Your task to perform on an android device: turn off data saver in the chrome app Image 0: 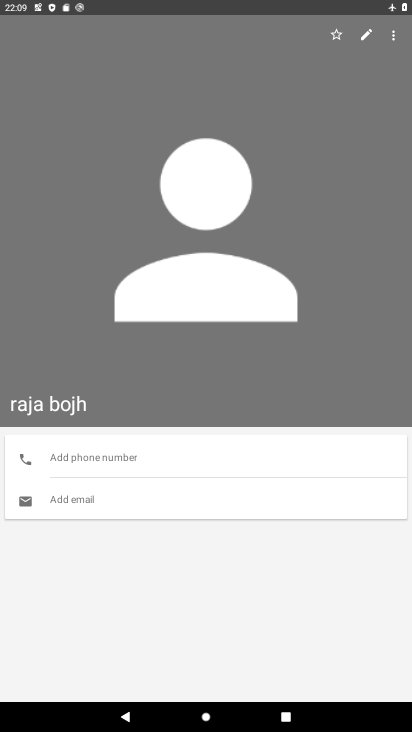
Step 0: press home button
Your task to perform on an android device: turn off data saver in the chrome app Image 1: 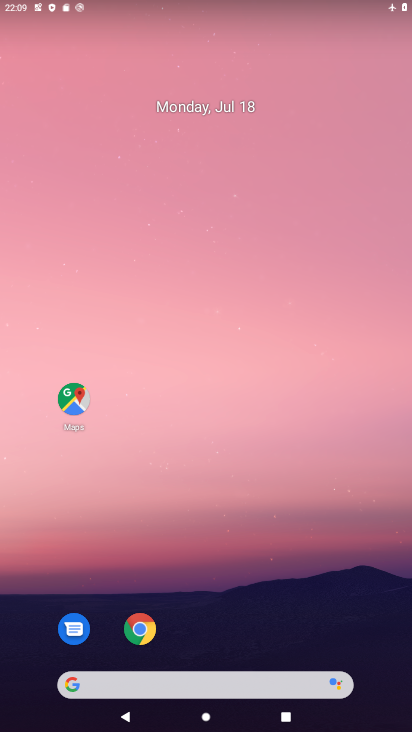
Step 1: drag from (268, 632) to (295, 199)
Your task to perform on an android device: turn off data saver in the chrome app Image 2: 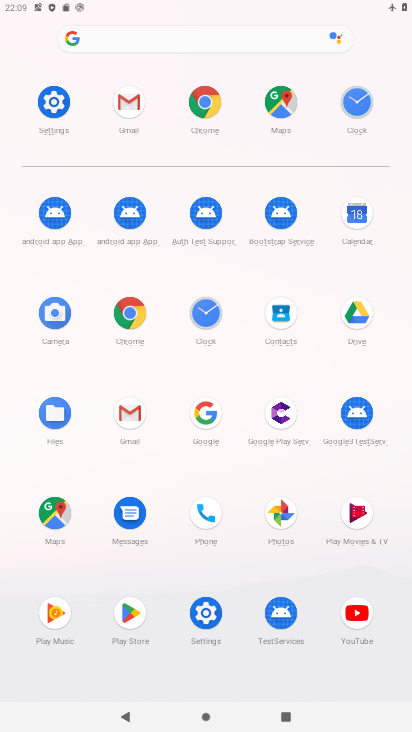
Step 2: click (213, 104)
Your task to perform on an android device: turn off data saver in the chrome app Image 3: 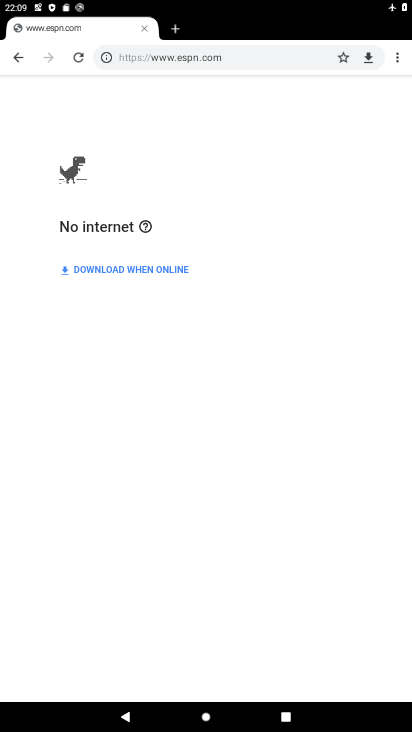
Step 3: drag from (397, 53) to (276, 394)
Your task to perform on an android device: turn off data saver in the chrome app Image 4: 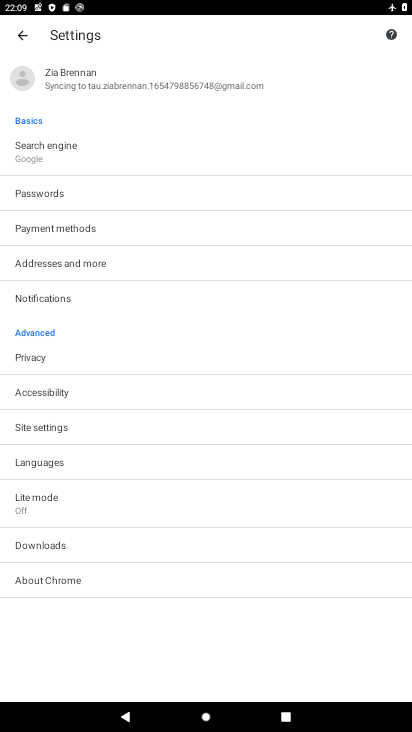
Step 4: click (55, 515)
Your task to perform on an android device: turn off data saver in the chrome app Image 5: 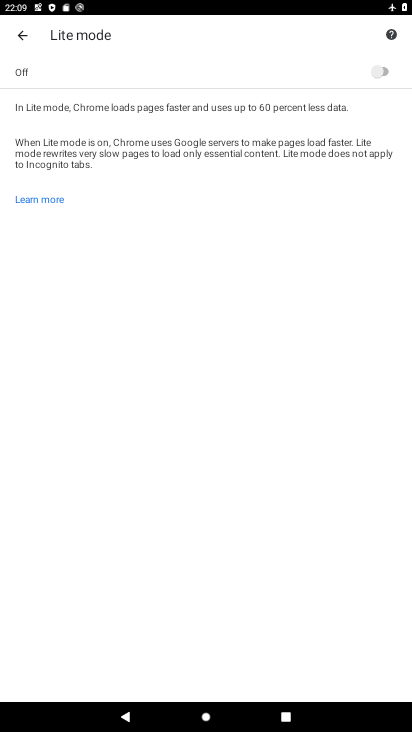
Step 5: task complete